Your task to perform on an android device: How much does a 2 bedroom apartment rent for in Austin? Image 0: 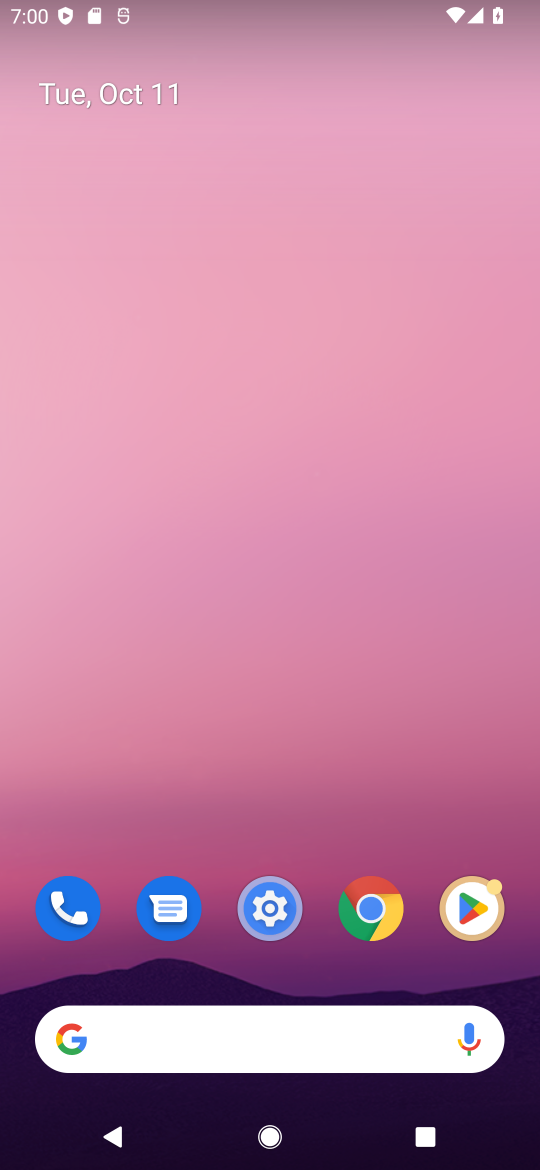
Step 0: press home button
Your task to perform on an android device: How much does a 2 bedroom apartment rent for in Austin? Image 1: 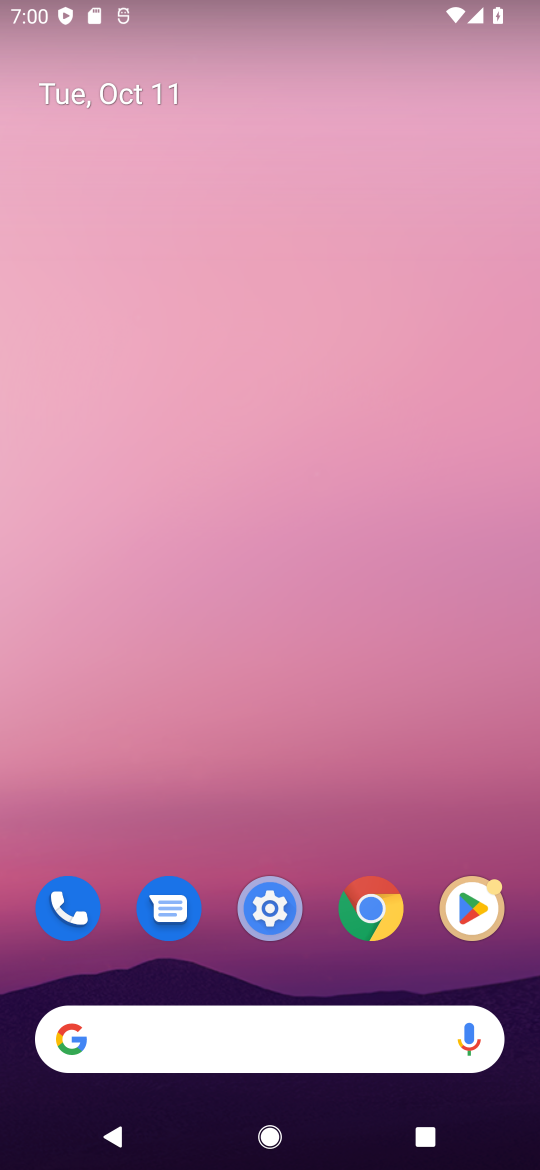
Step 1: click (69, 1031)
Your task to perform on an android device: How much does a 2 bedroom apartment rent for in Austin? Image 2: 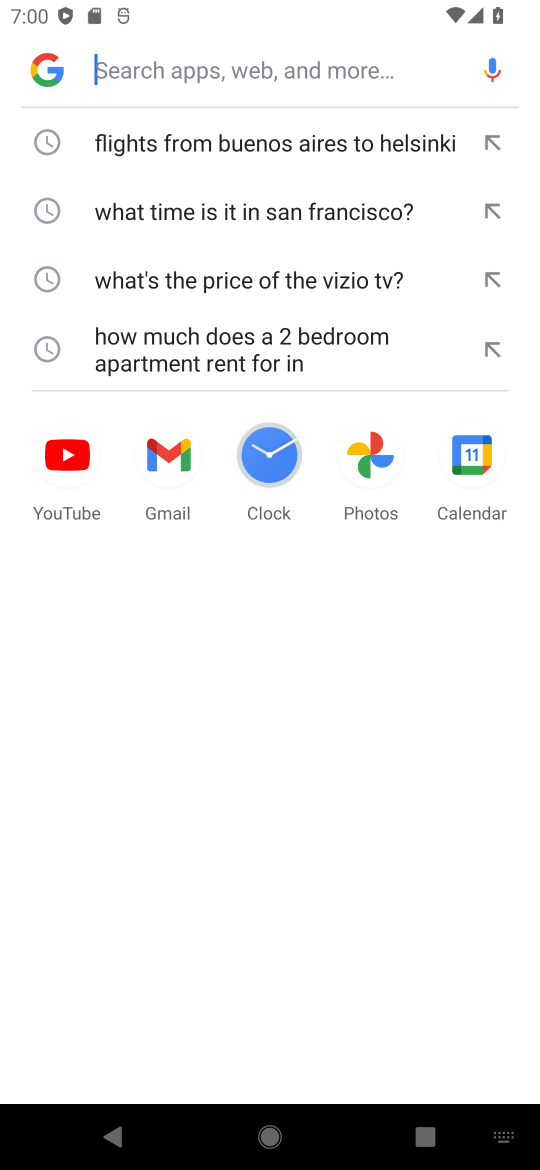
Step 2: type "How much does a 2 bedroom apartment rent for in Austin?"
Your task to perform on an android device: How much does a 2 bedroom apartment rent for in Austin? Image 3: 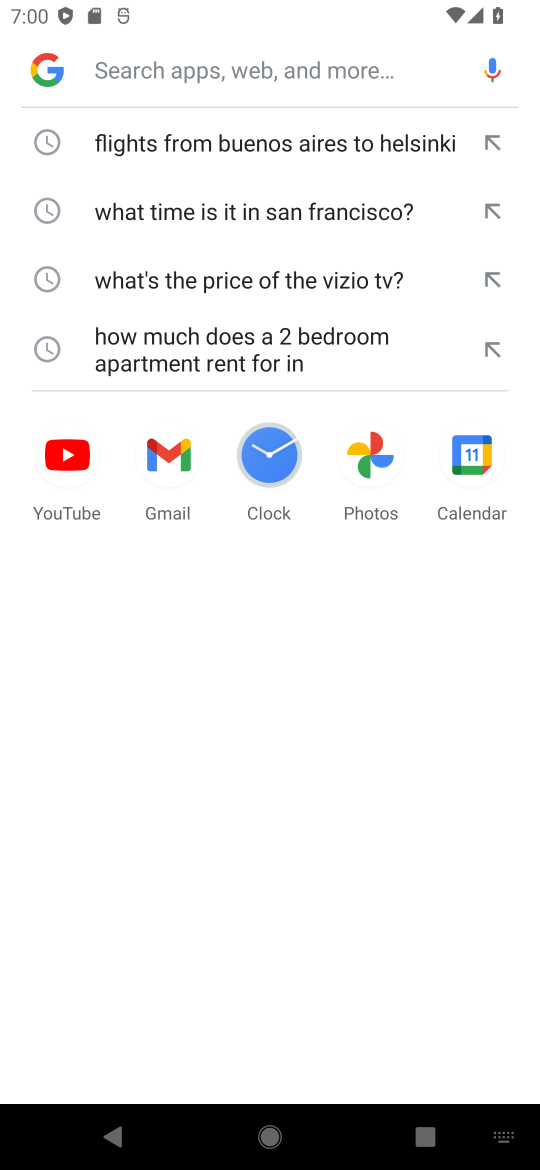
Step 3: click (183, 62)
Your task to perform on an android device: How much does a 2 bedroom apartment rent for in Austin? Image 4: 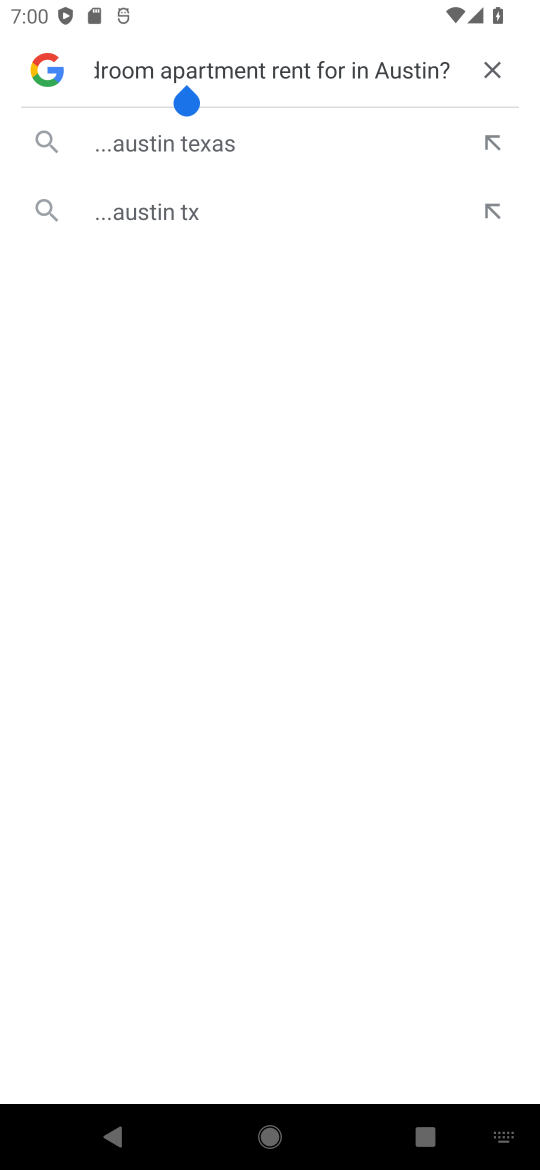
Step 4: press enter
Your task to perform on an android device: How much does a 2 bedroom apartment rent for in Austin? Image 5: 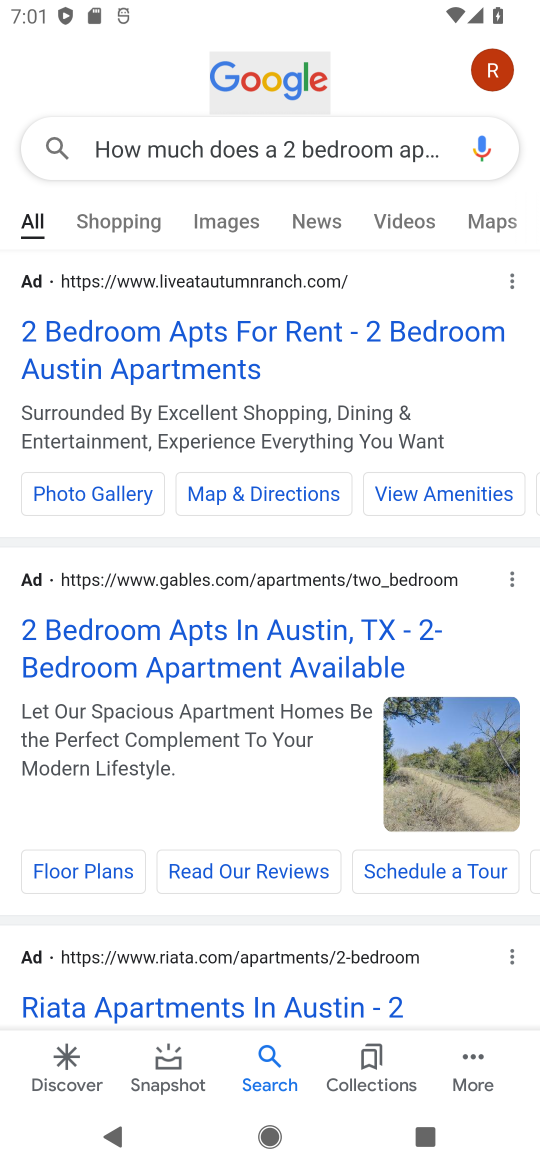
Step 5: task complete